Your task to perform on an android device: check storage Image 0: 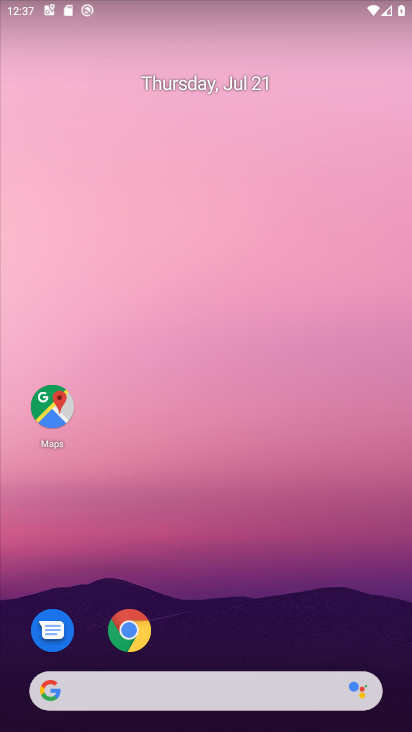
Step 0: drag from (221, 520) to (216, 127)
Your task to perform on an android device: check storage Image 1: 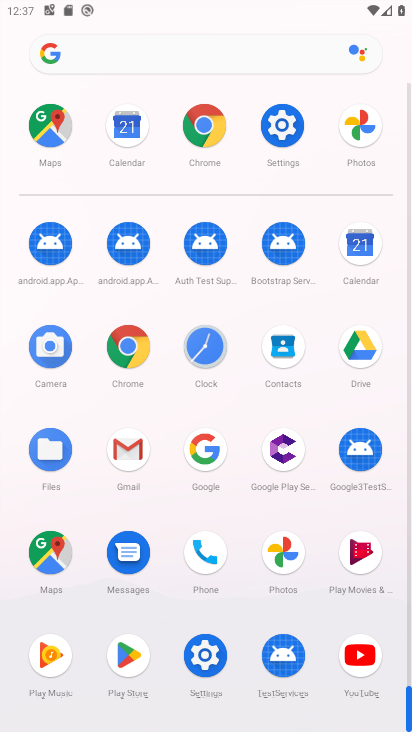
Step 1: click (194, 647)
Your task to perform on an android device: check storage Image 2: 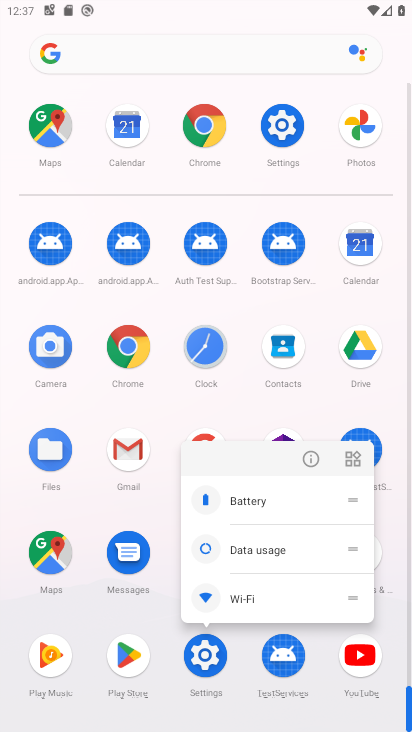
Step 2: click (288, 453)
Your task to perform on an android device: check storage Image 3: 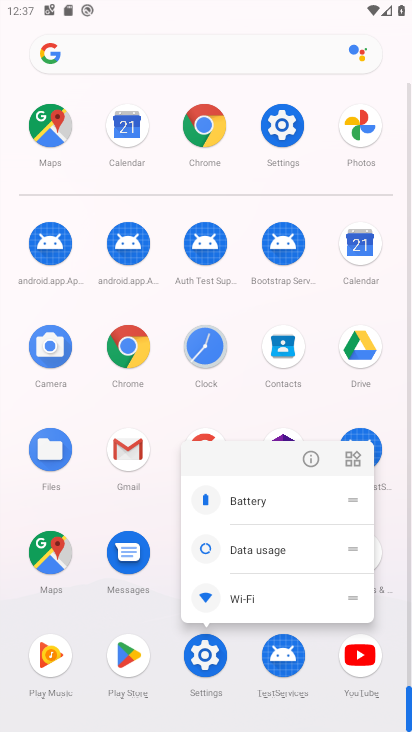
Step 3: click (312, 460)
Your task to perform on an android device: check storage Image 4: 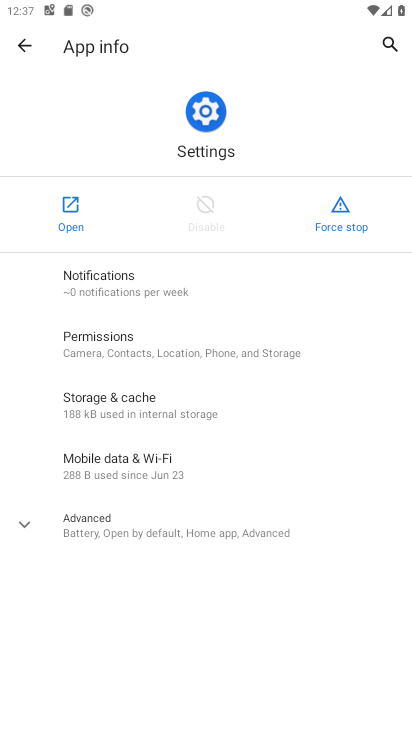
Step 4: click (56, 204)
Your task to perform on an android device: check storage Image 5: 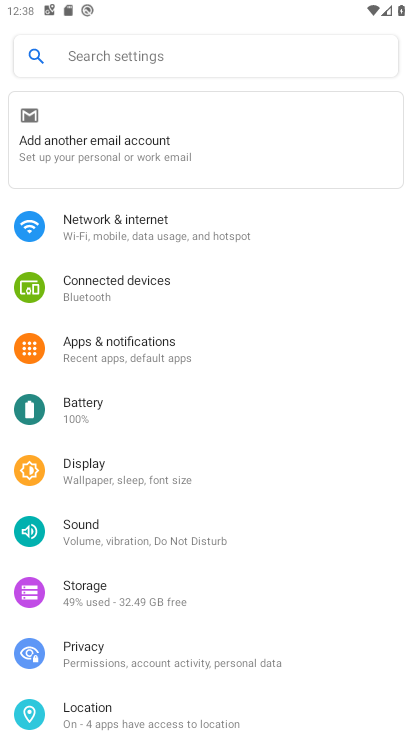
Step 5: click (106, 590)
Your task to perform on an android device: check storage Image 6: 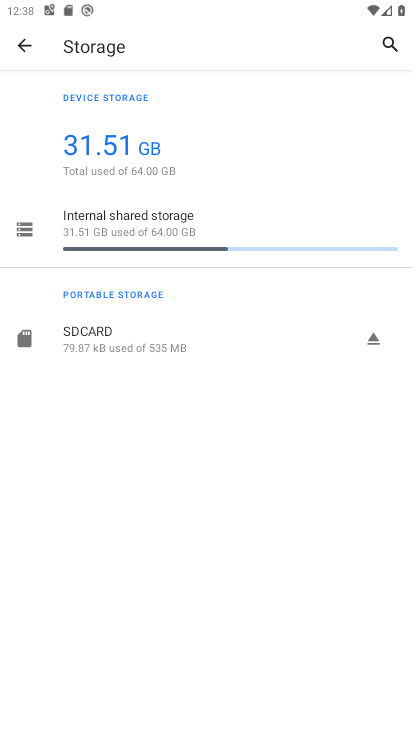
Step 6: task complete